Your task to perform on an android device: When is my next meeting? Image 0: 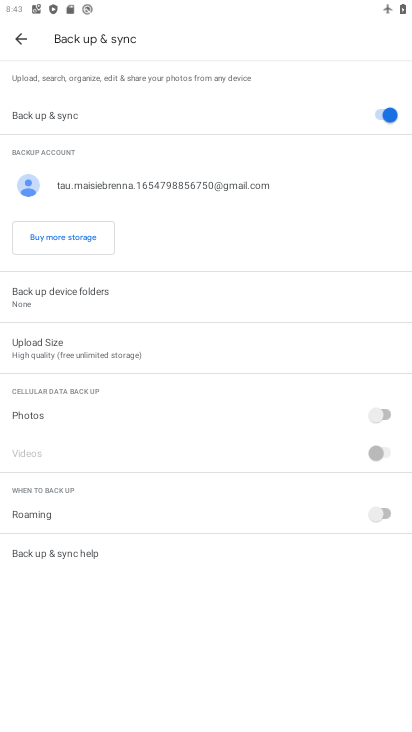
Step 0: press home button
Your task to perform on an android device: When is my next meeting? Image 1: 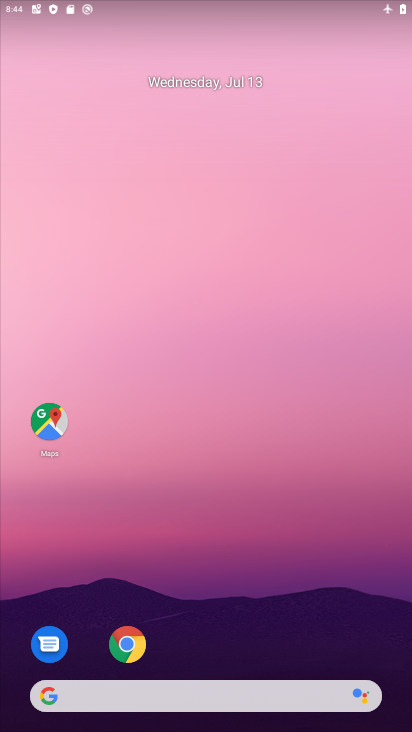
Step 1: drag from (229, 722) to (215, 91)
Your task to perform on an android device: When is my next meeting? Image 2: 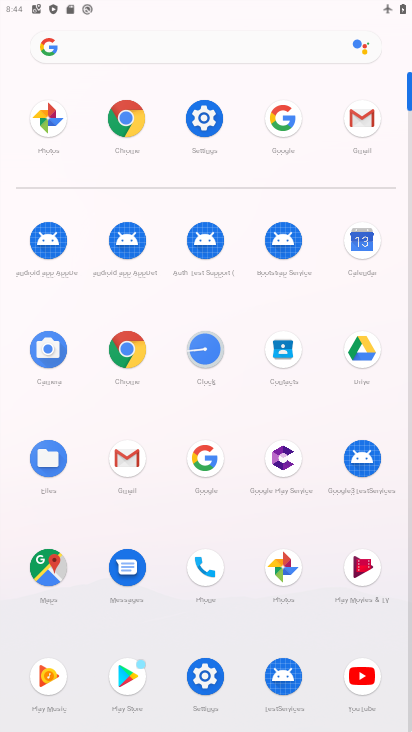
Step 2: click (356, 239)
Your task to perform on an android device: When is my next meeting? Image 3: 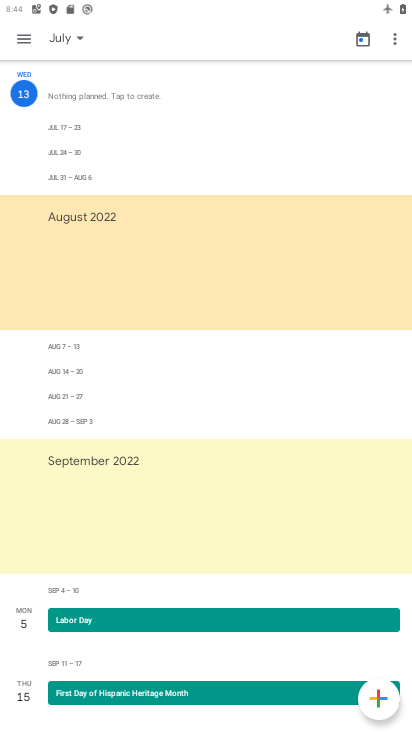
Step 3: click (80, 39)
Your task to perform on an android device: When is my next meeting? Image 4: 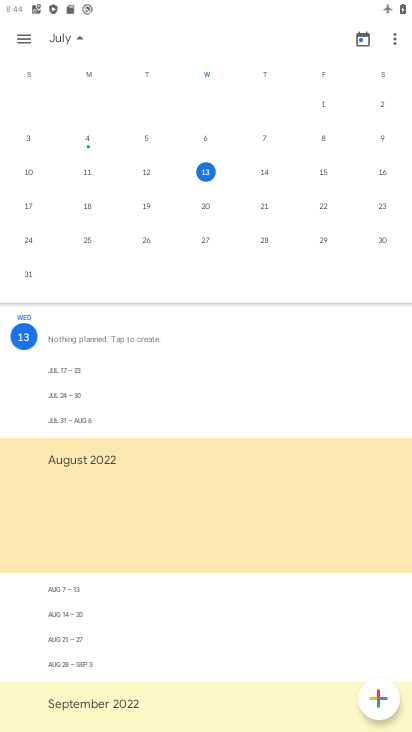
Step 4: click (259, 169)
Your task to perform on an android device: When is my next meeting? Image 5: 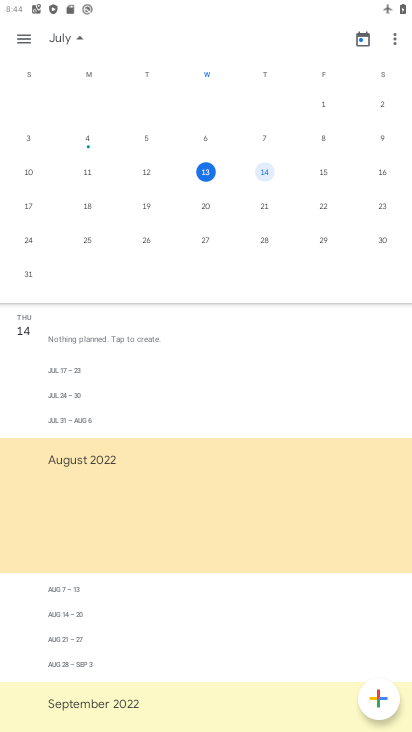
Step 5: click (262, 169)
Your task to perform on an android device: When is my next meeting? Image 6: 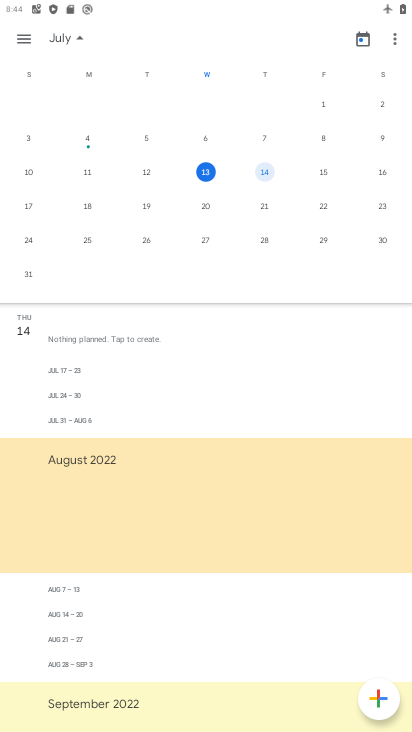
Step 6: click (262, 169)
Your task to perform on an android device: When is my next meeting? Image 7: 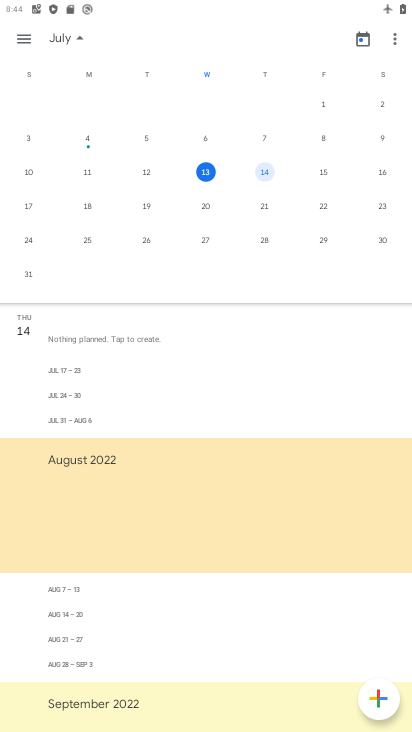
Step 7: click (262, 169)
Your task to perform on an android device: When is my next meeting? Image 8: 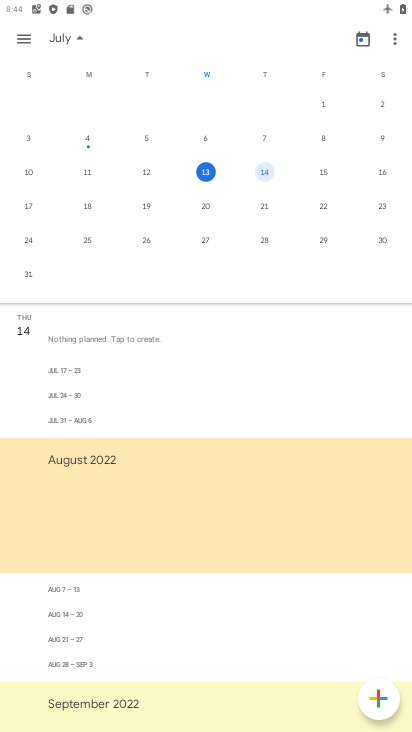
Step 8: click (20, 317)
Your task to perform on an android device: When is my next meeting? Image 9: 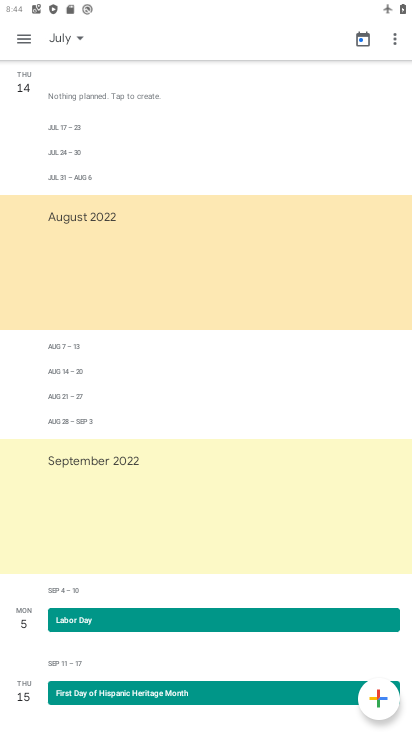
Step 9: task complete